Your task to perform on an android device: turn on the 24-hour format for clock Image 0: 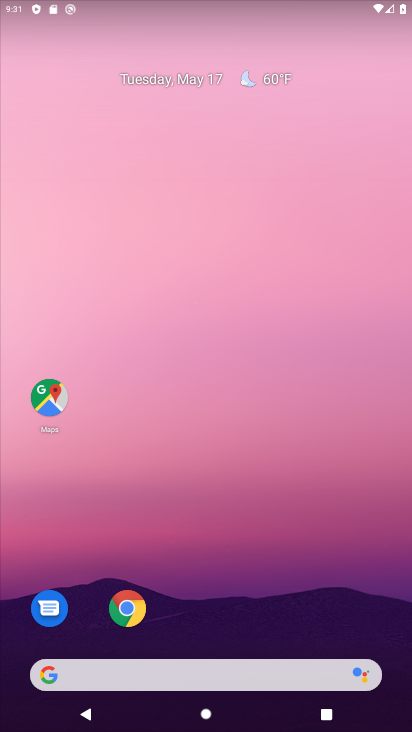
Step 0: drag from (200, 538) to (230, 236)
Your task to perform on an android device: turn on the 24-hour format for clock Image 1: 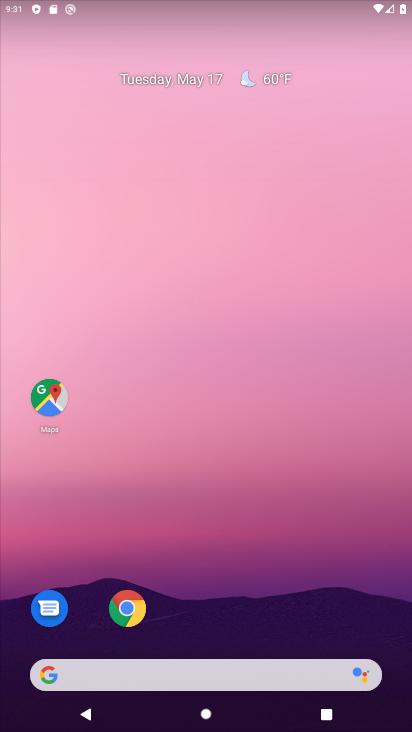
Step 1: drag from (277, 576) to (282, 204)
Your task to perform on an android device: turn on the 24-hour format for clock Image 2: 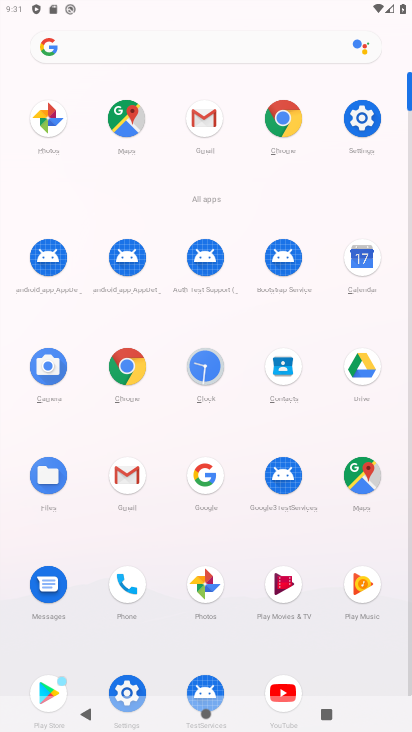
Step 2: click (200, 357)
Your task to perform on an android device: turn on the 24-hour format for clock Image 3: 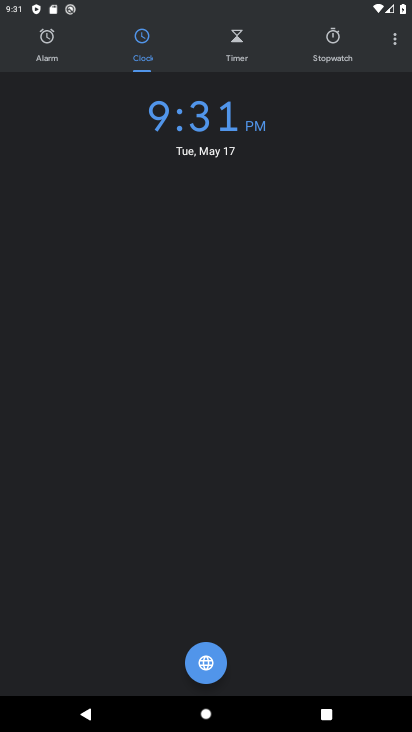
Step 3: click (392, 39)
Your task to perform on an android device: turn on the 24-hour format for clock Image 4: 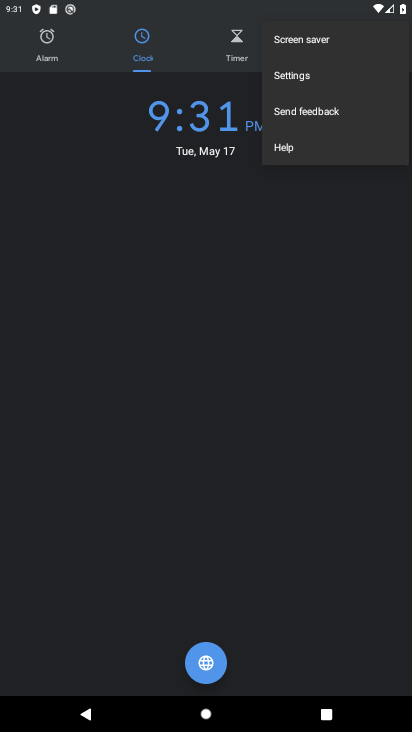
Step 4: click (289, 74)
Your task to perform on an android device: turn on the 24-hour format for clock Image 5: 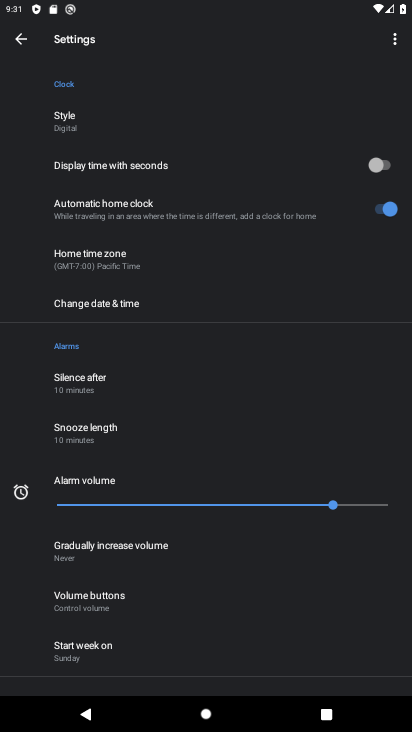
Step 5: click (144, 372)
Your task to perform on an android device: turn on the 24-hour format for clock Image 6: 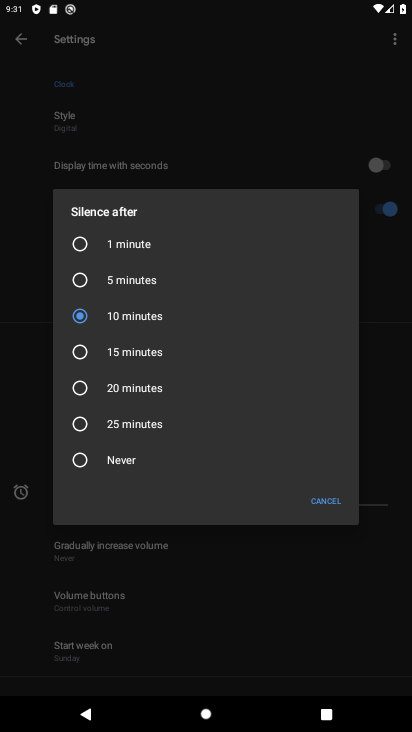
Step 6: click (308, 504)
Your task to perform on an android device: turn on the 24-hour format for clock Image 7: 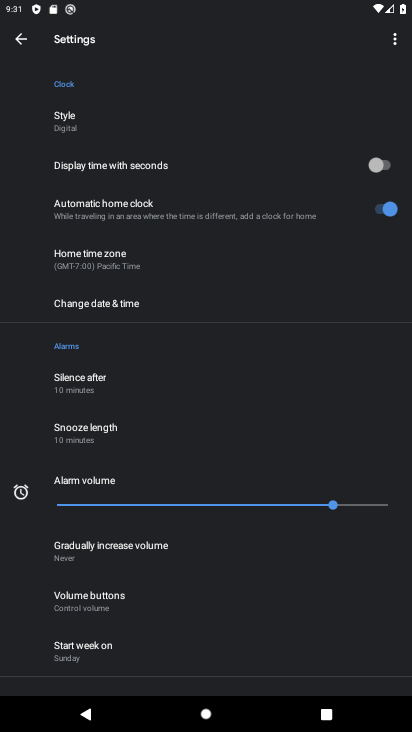
Step 7: click (209, 496)
Your task to perform on an android device: turn on the 24-hour format for clock Image 8: 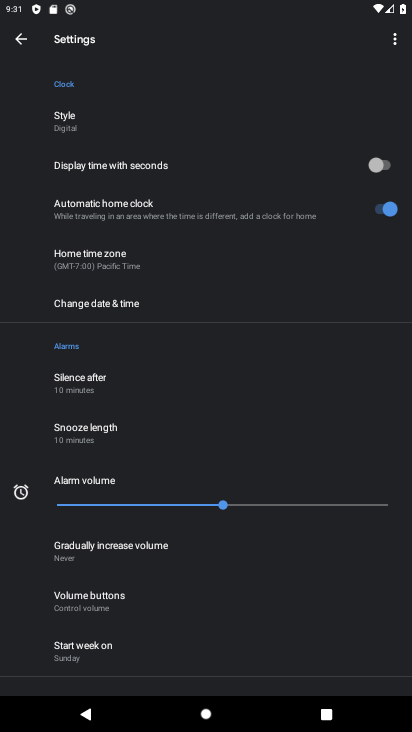
Step 8: click (83, 303)
Your task to perform on an android device: turn on the 24-hour format for clock Image 9: 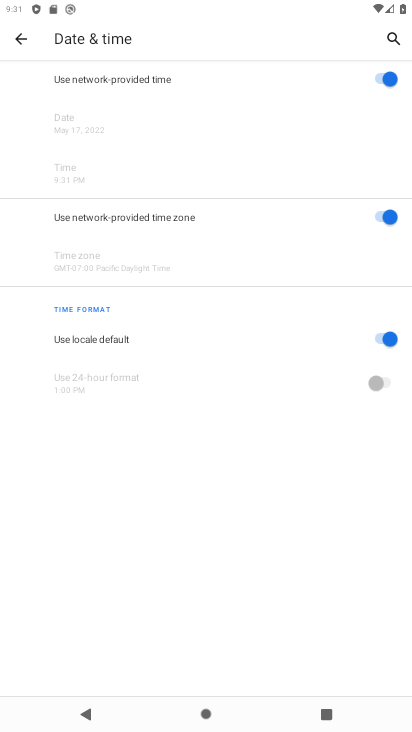
Step 9: click (388, 337)
Your task to perform on an android device: turn on the 24-hour format for clock Image 10: 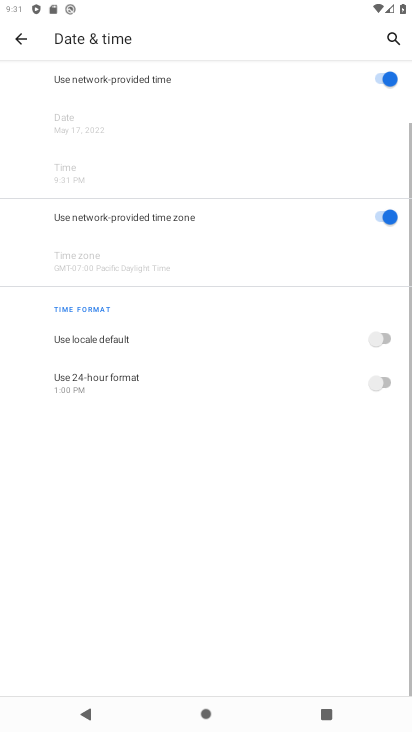
Step 10: click (377, 371)
Your task to perform on an android device: turn on the 24-hour format for clock Image 11: 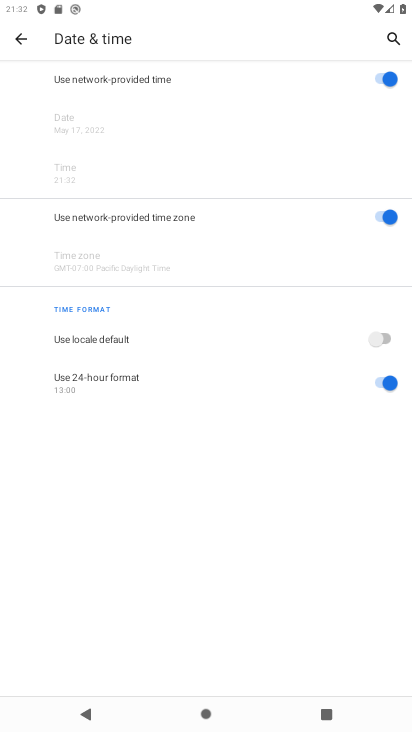
Step 11: task complete